Your task to perform on an android device: change text size in settings app Image 0: 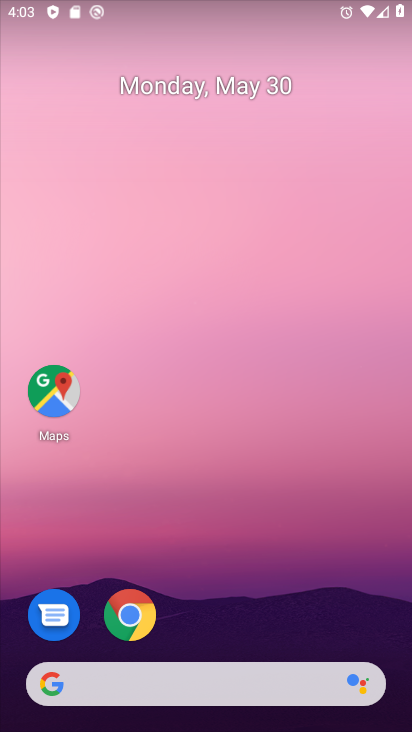
Step 0: drag from (289, 612) to (236, 59)
Your task to perform on an android device: change text size in settings app Image 1: 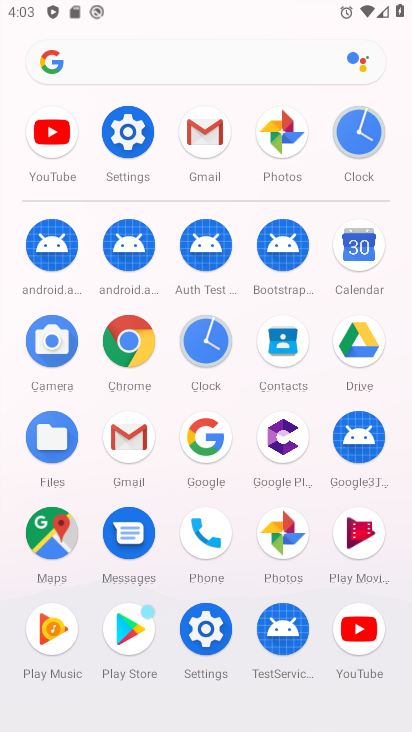
Step 1: click (131, 130)
Your task to perform on an android device: change text size in settings app Image 2: 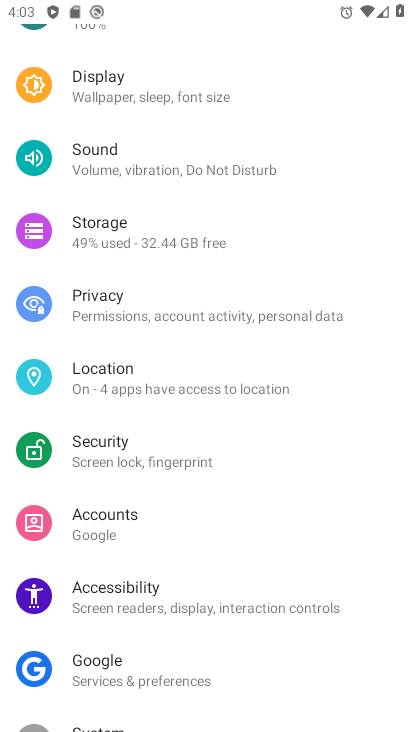
Step 2: click (196, 92)
Your task to perform on an android device: change text size in settings app Image 3: 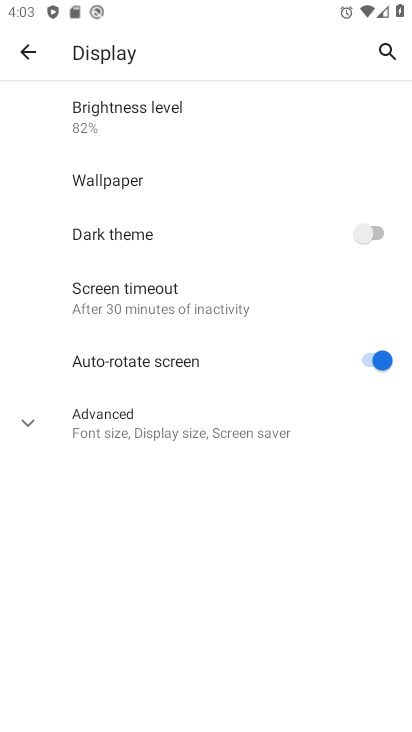
Step 3: click (31, 417)
Your task to perform on an android device: change text size in settings app Image 4: 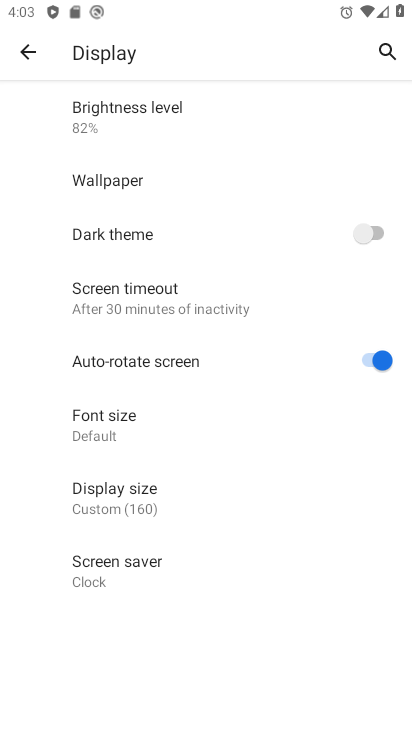
Step 4: click (127, 420)
Your task to perform on an android device: change text size in settings app Image 5: 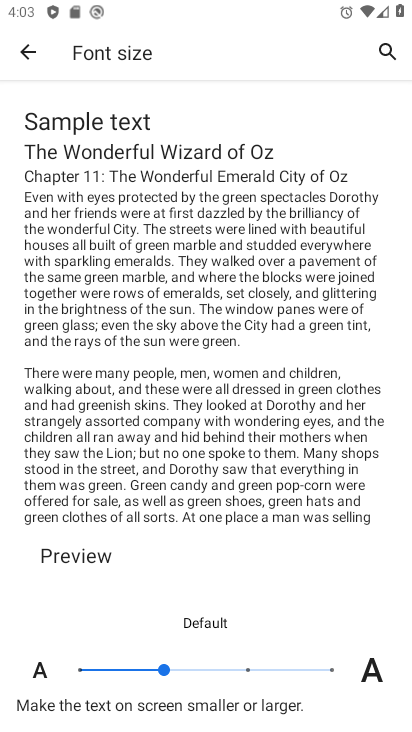
Step 5: click (244, 662)
Your task to perform on an android device: change text size in settings app Image 6: 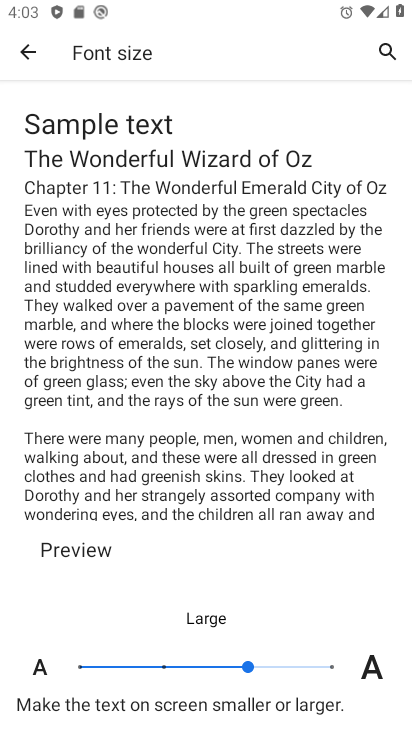
Step 6: task complete